Your task to perform on an android device: Go to privacy settings Image 0: 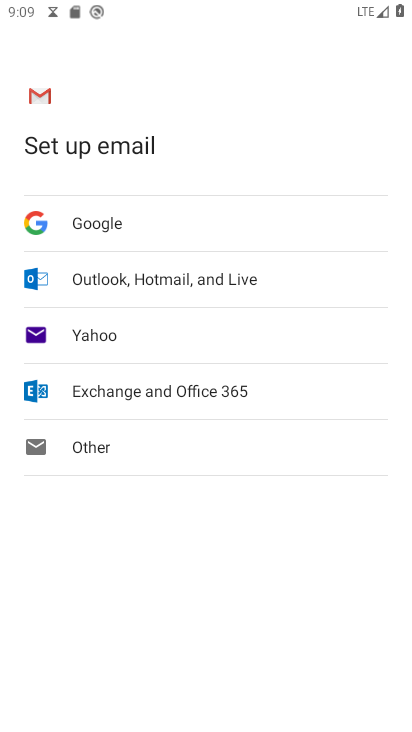
Step 0: press home button
Your task to perform on an android device: Go to privacy settings Image 1: 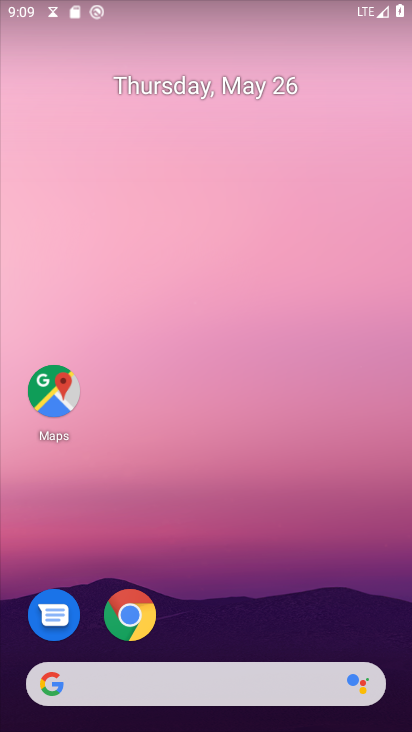
Step 1: drag from (214, 628) to (241, 263)
Your task to perform on an android device: Go to privacy settings Image 2: 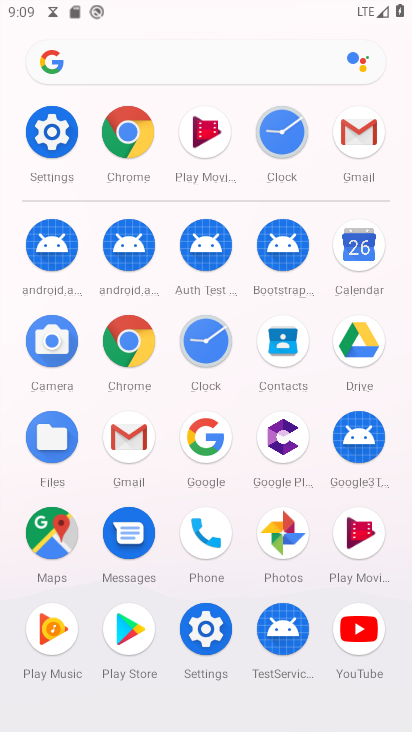
Step 2: click (45, 125)
Your task to perform on an android device: Go to privacy settings Image 3: 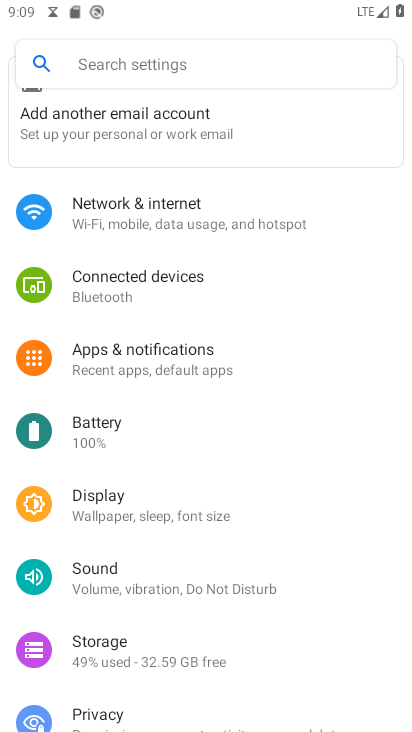
Step 3: drag from (142, 622) to (208, 309)
Your task to perform on an android device: Go to privacy settings Image 4: 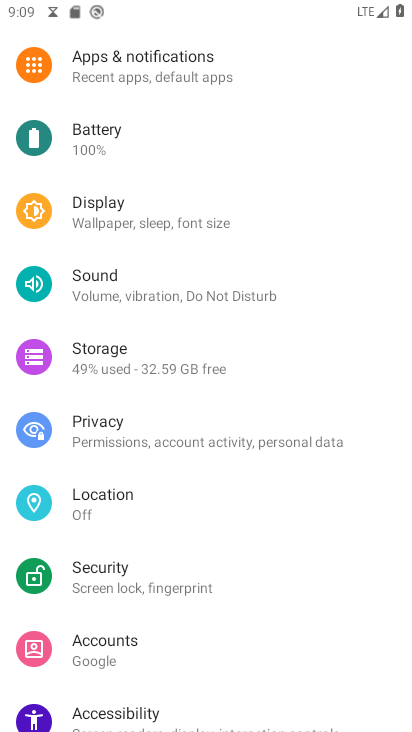
Step 4: drag from (157, 613) to (211, 252)
Your task to perform on an android device: Go to privacy settings Image 5: 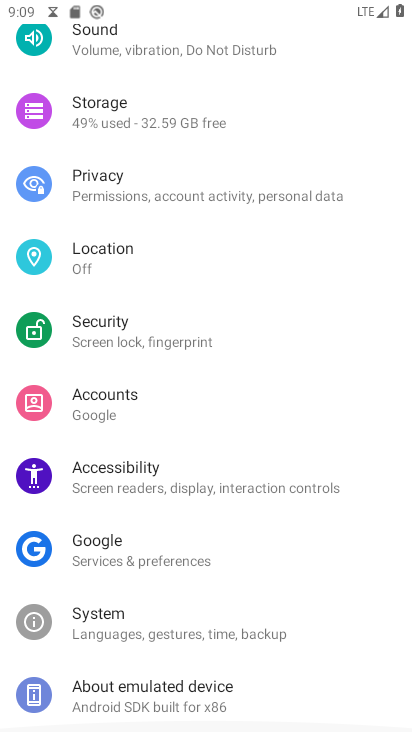
Step 5: drag from (155, 565) to (203, 237)
Your task to perform on an android device: Go to privacy settings Image 6: 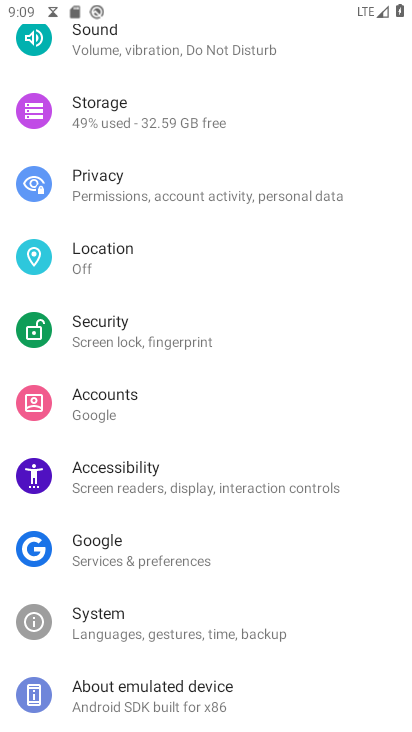
Step 6: click (149, 190)
Your task to perform on an android device: Go to privacy settings Image 7: 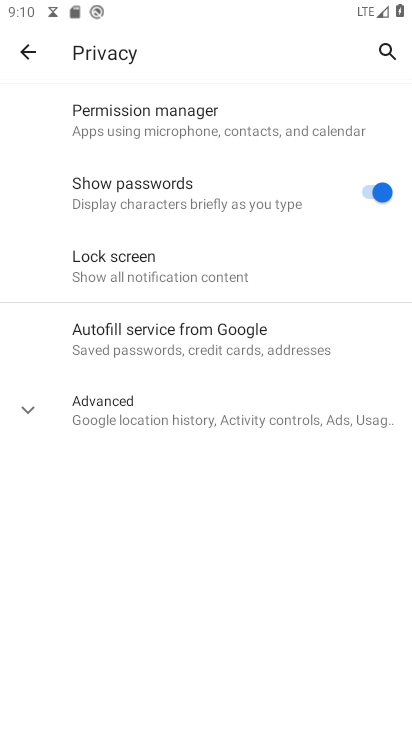
Step 7: task complete